Your task to perform on an android device: change the clock display to analog Image 0: 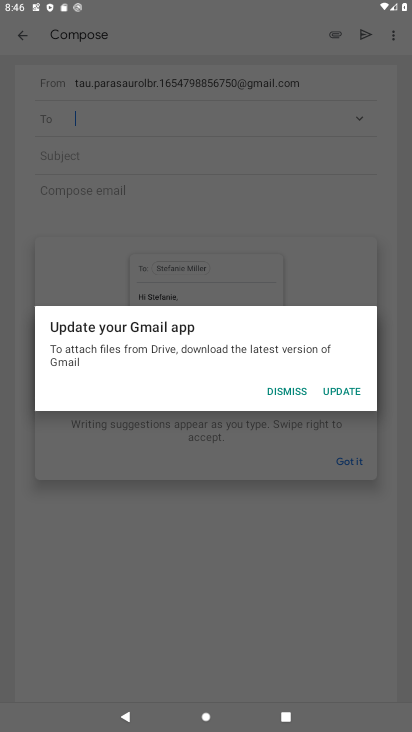
Step 0: press back button
Your task to perform on an android device: change the clock display to analog Image 1: 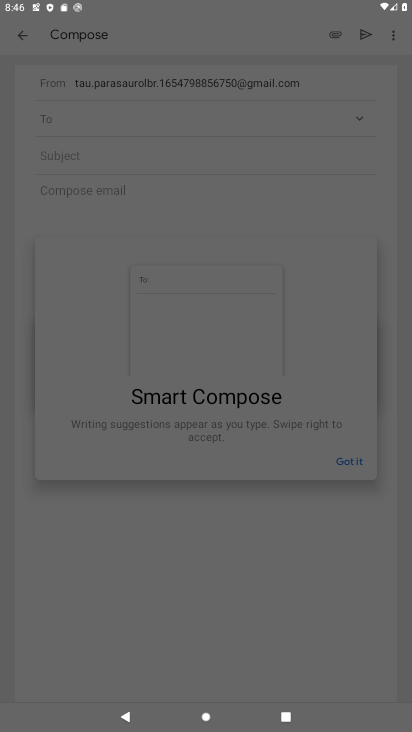
Step 1: press back button
Your task to perform on an android device: change the clock display to analog Image 2: 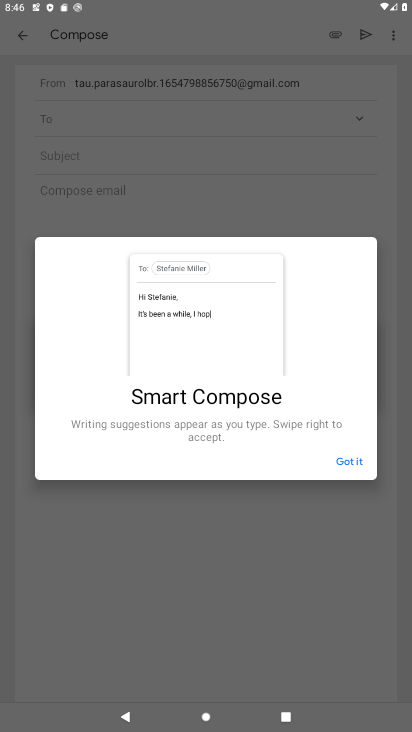
Step 2: press back button
Your task to perform on an android device: change the clock display to analog Image 3: 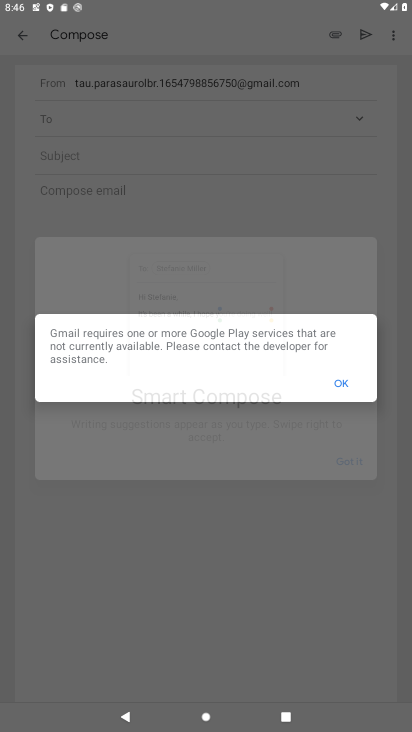
Step 3: press back button
Your task to perform on an android device: change the clock display to analog Image 4: 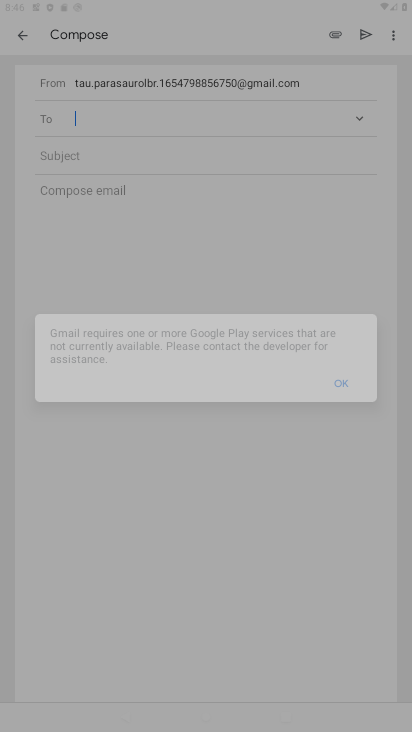
Step 4: press back button
Your task to perform on an android device: change the clock display to analog Image 5: 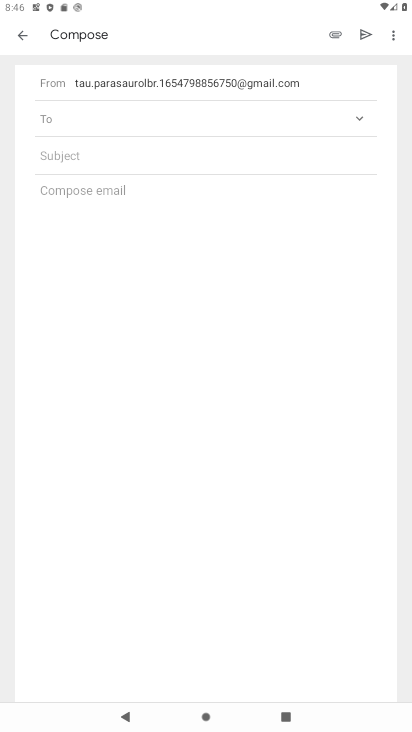
Step 5: press back button
Your task to perform on an android device: change the clock display to analog Image 6: 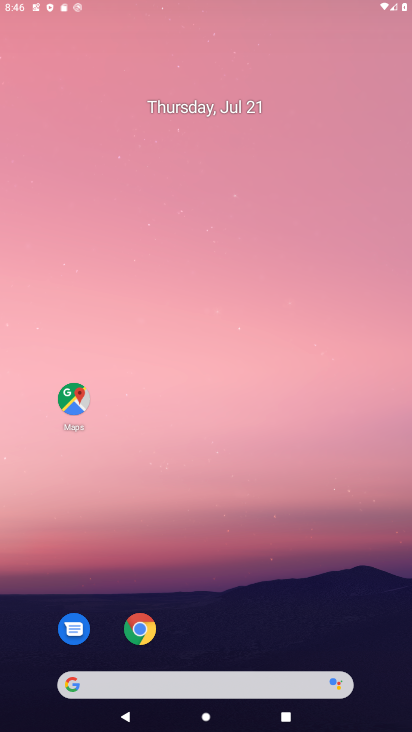
Step 6: press back button
Your task to perform on an android device: change the clock display to analog Image 7: 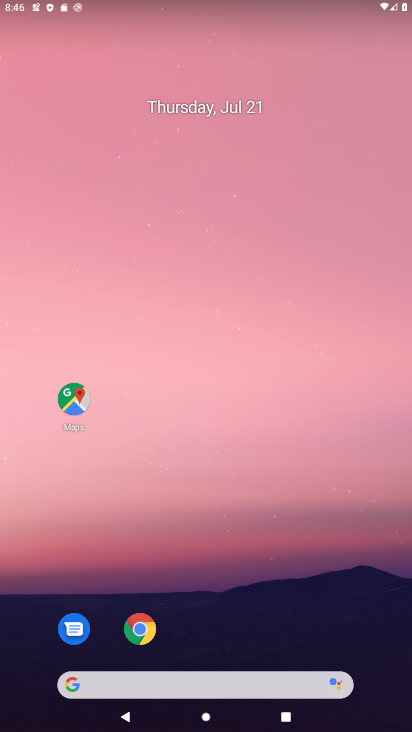
Step 7: press back button
Your task to perform on an android device: change the clock display to analog Image 8: 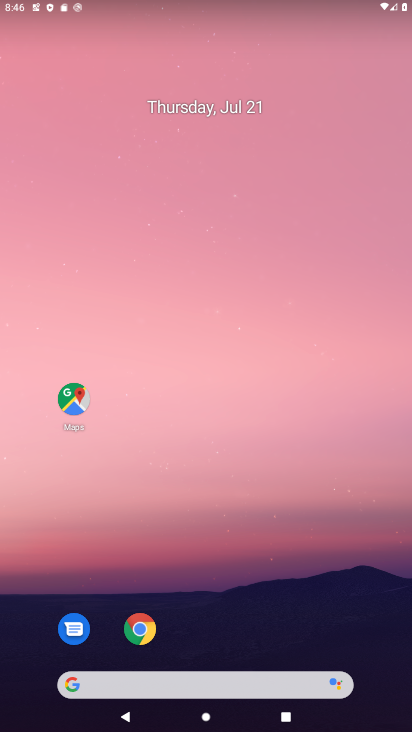
Step 8: press back button
Your task to perform on an android device: change the clock display to analog Image 9: 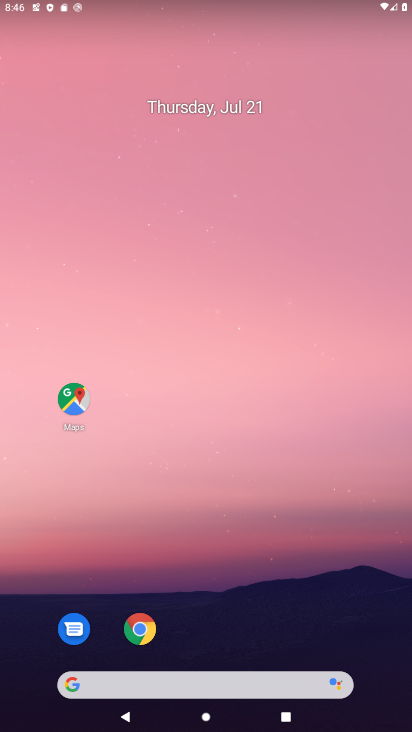
Step 9: drag from (210, 594) to (285, 20)
Your task to perform on an android device: change the clock display to analog Image 10: 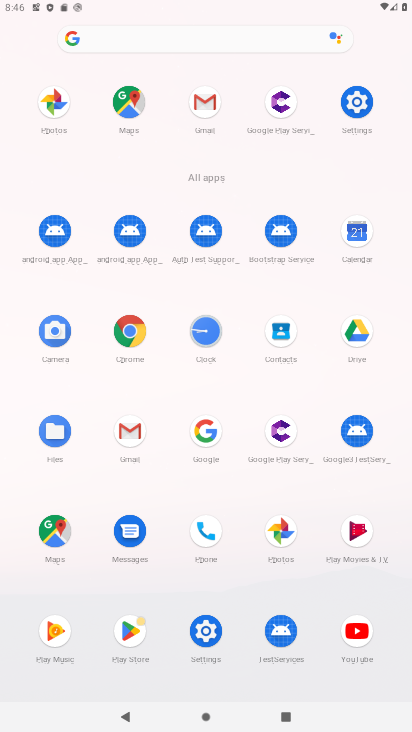
Step 10: click (209, 349)
Your task to perform on an android device: change the clock display to analog Image 11: 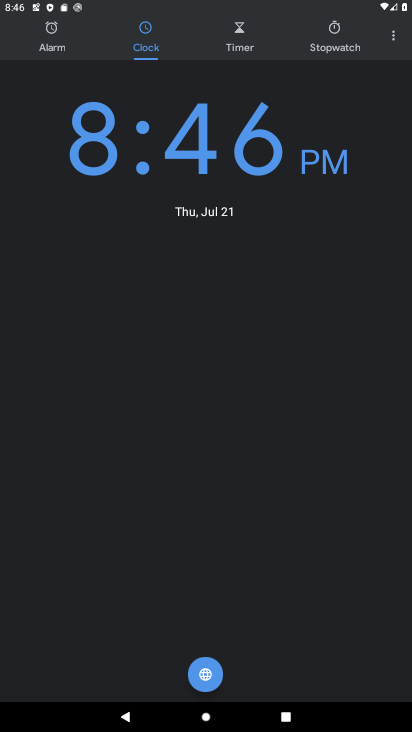
Step 11: click (403, 49)
Your task to perform on an android device: change the clock display to analog Image 12: 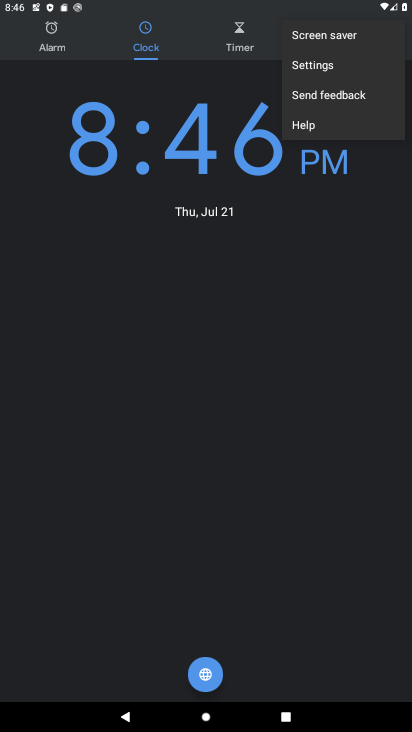
Step 12: click (342, 64)
Your task to perform on an android device: change the clock display to analog Image 13: 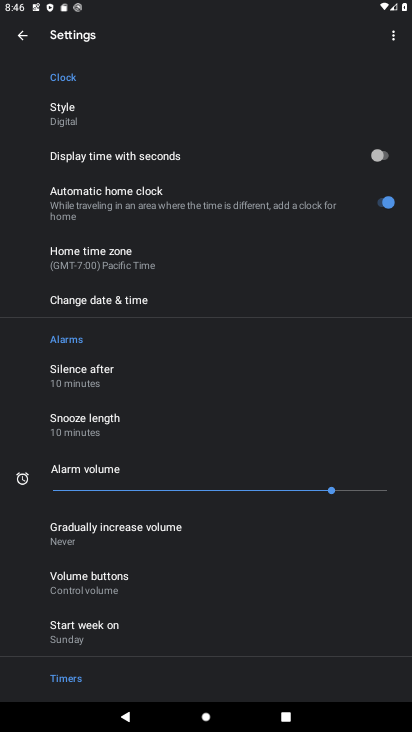
Step 13: click (110, 118)
Your task to perform on an android device: change the clock display to analog Image 14: 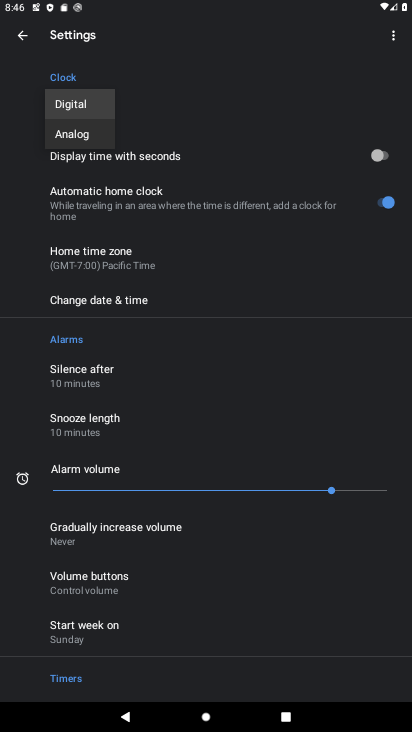
Step 14: click (89, 142)
Your task to perform on an android device: change the clock display to analog Image 15: 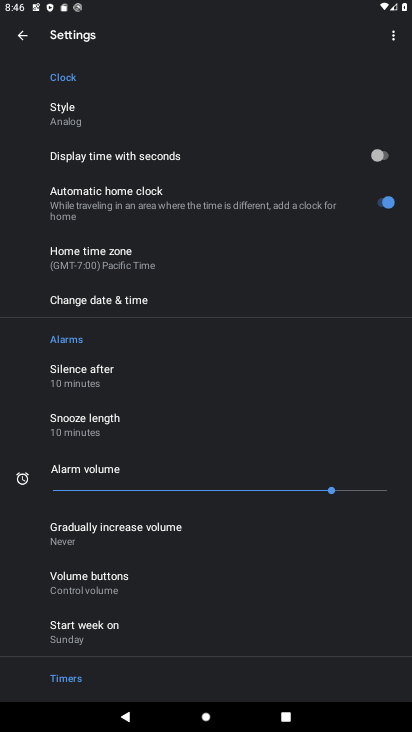
Step 15: task complete